Your task to perform on an android device: clear all cookies in the chrome app Image 0: 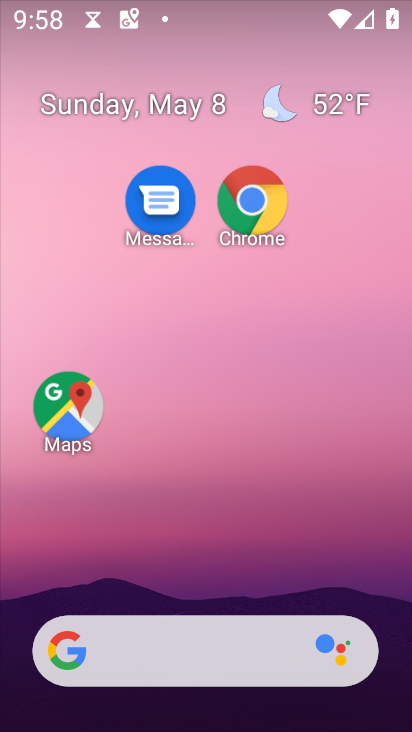
Step 0: drag from (207, 602) to (165, 7)
Your task to perform on an android device: clear all cookies in the chrome app Image 1: 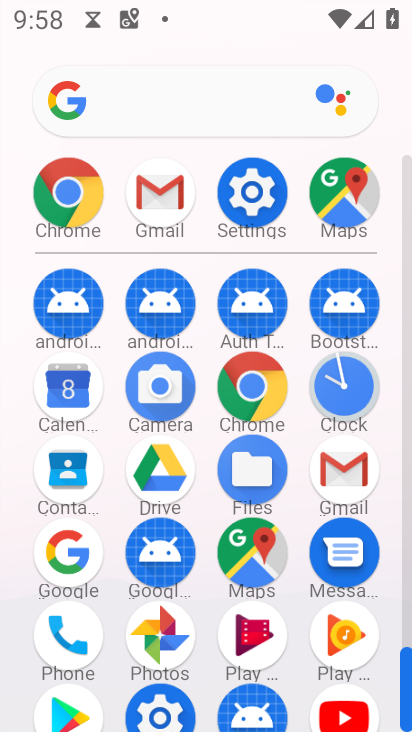
Step 1: click (71, 226)
Your task to perform on an android device: clear all cookies in the chrome app Image 2: 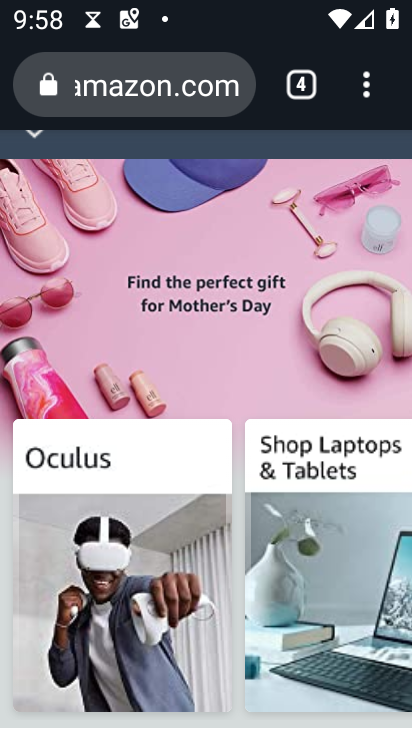
Step 2: click (358, 92)
Your task to perform on an android device: clear all cookies in the chrome app Image 3: 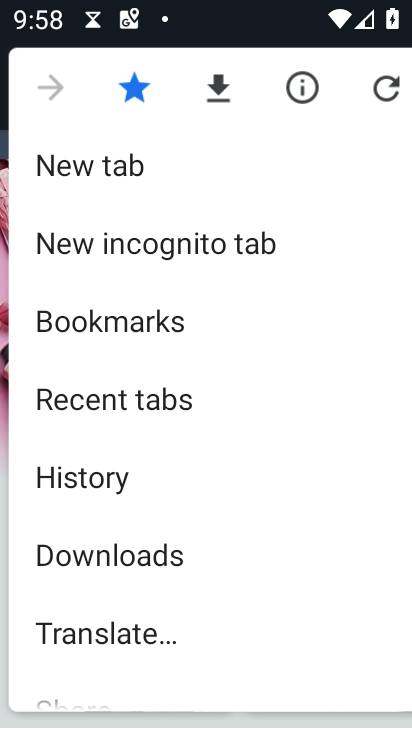
Step 3: click (145, 456)
Your task to perform on an android device: clear all cookies in the chrome app Image 4: 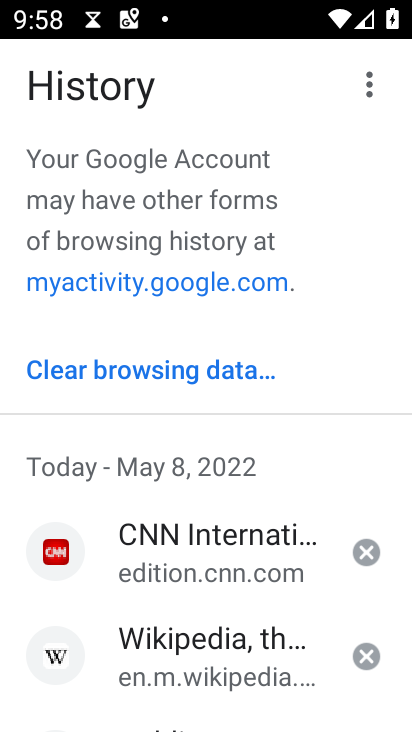
Step 4: click (123, 365)
Your task to perform on an android device: clear all cookies in the chrome app Image 5: 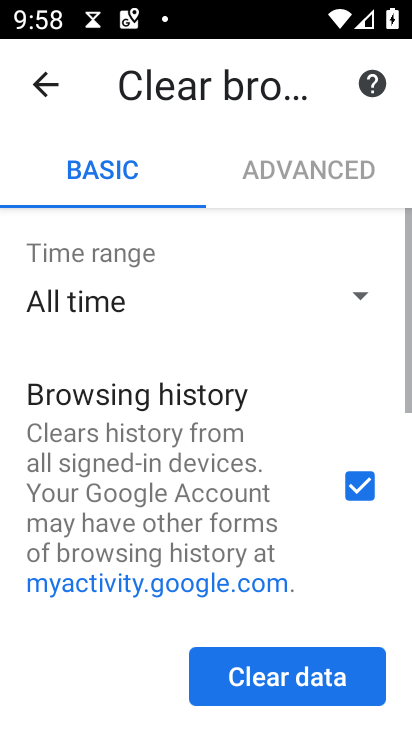
Step 5: click (286, 658)
Your task to perform on an android device: clear all cookies in the chrome app Image 6: 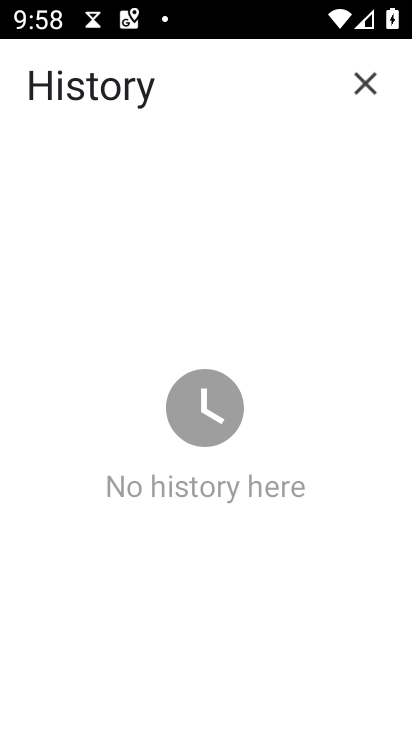
Step 6: task complete